Your task to perform on an android device: Add "amazon basics triple a" to the cart on newegg.com Image 0: 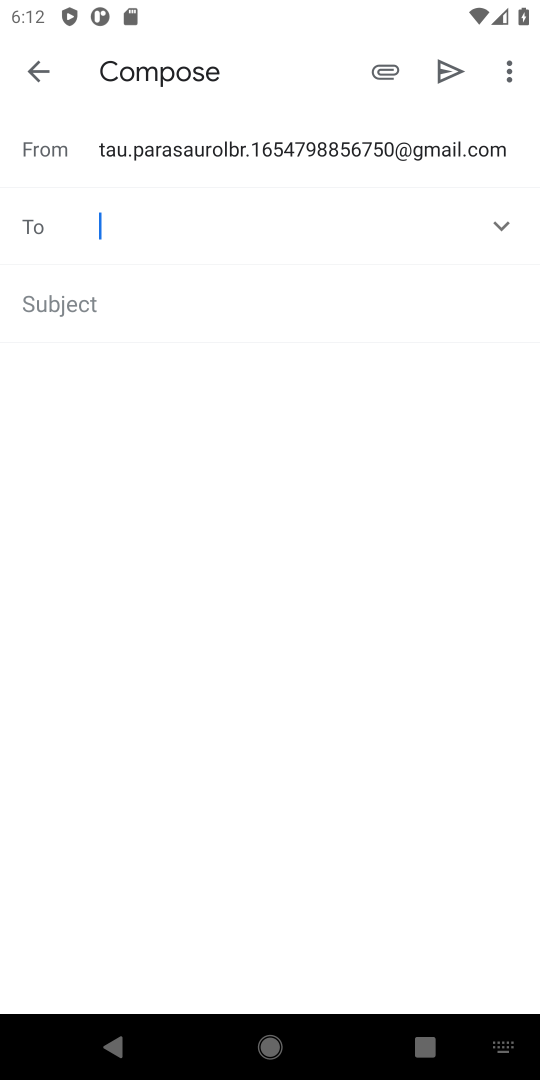
Step 0: click (141, 954)
Your task to perform on an android device: Add "amazon basics triple a" to the cart on newegg.com Image 1: 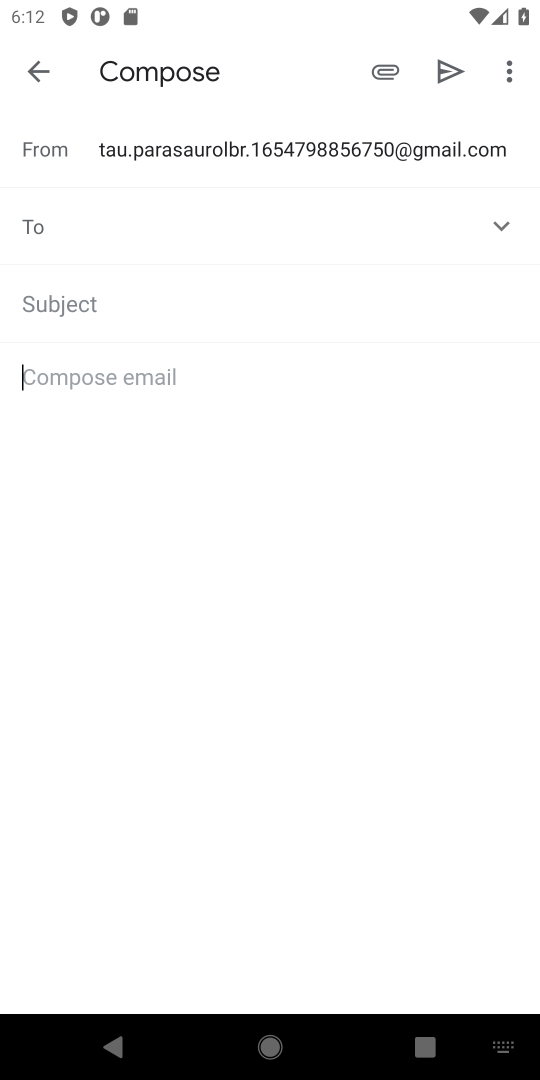
Step 1: press home button
Your task to perform on an android device: Add "amazon basics triple a" to the cart on newegg.com Image 2: 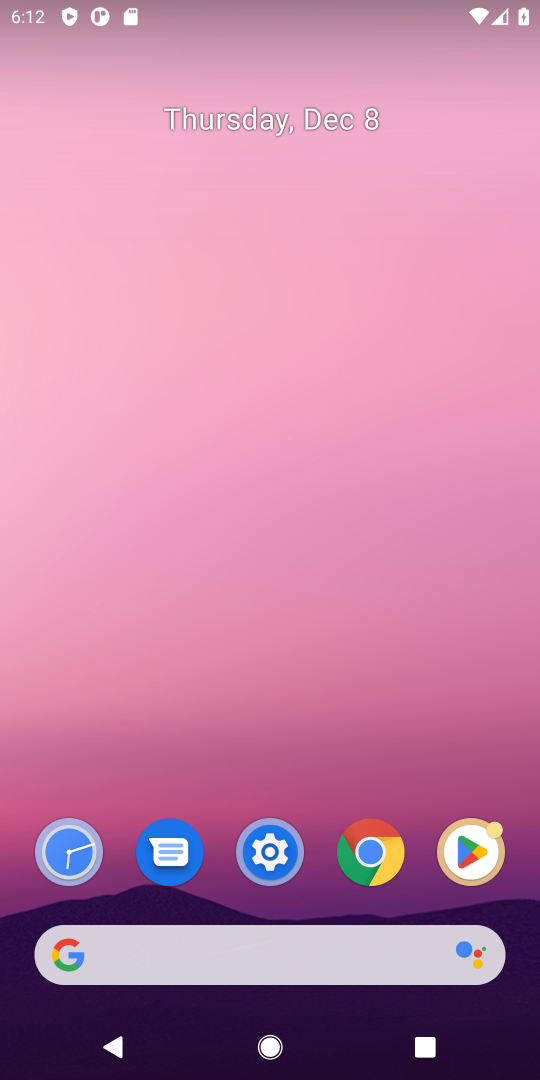
Step 2: click (259, 963)
Your task to perform on an android device: Add "amazon basics triple a" to the cart on newegg.com Image 3: 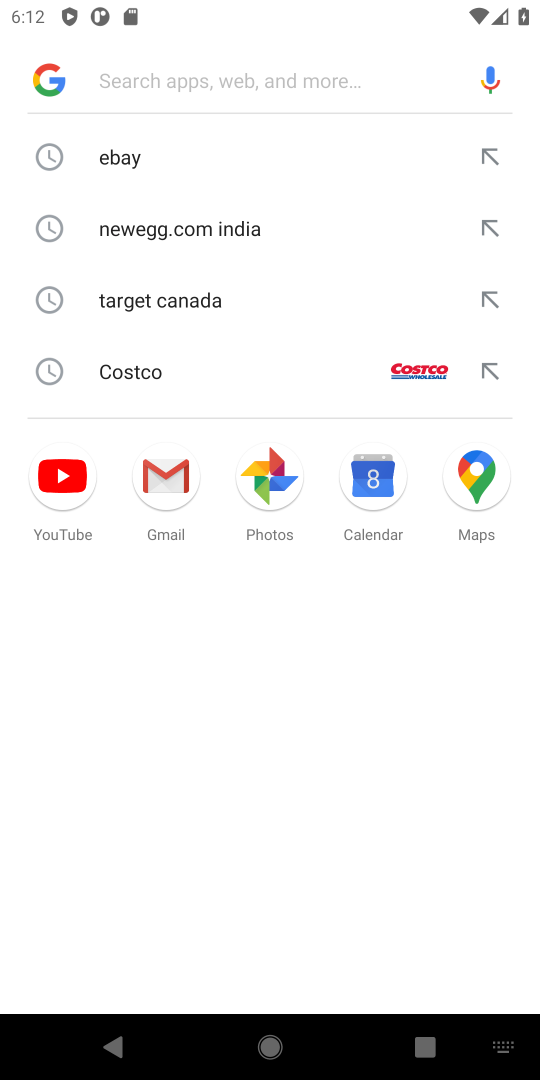
Step 3: type "newegg.com"
Your task to perform on an android device: Add "amazon basics triple a" to the cart on newegg.com Image 4: 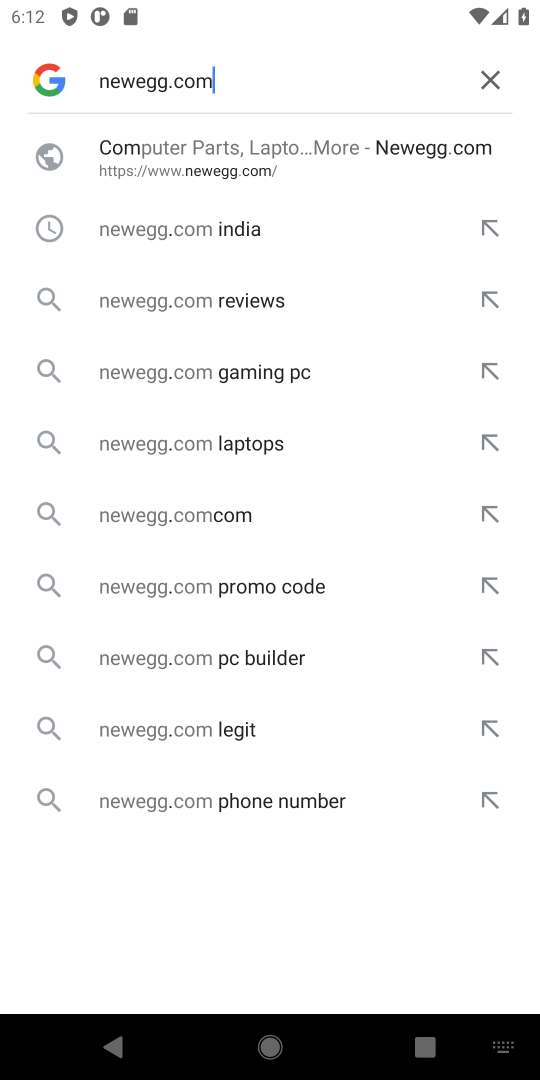
Step 4: click (289, 158)
Your task to perform on an android device: Add "amazon basics triple a" to the cart on newegg.com Image 5: 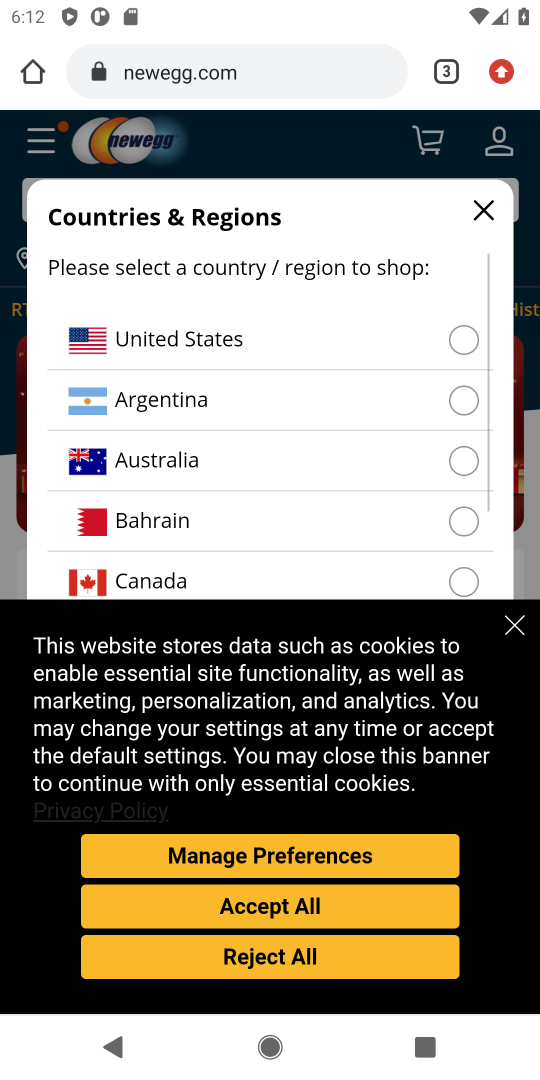
Step 5: click (174, 898)
Your task to perform on an android device: Add "amazon basics triple a" to the cart on newegg.com Image 6: 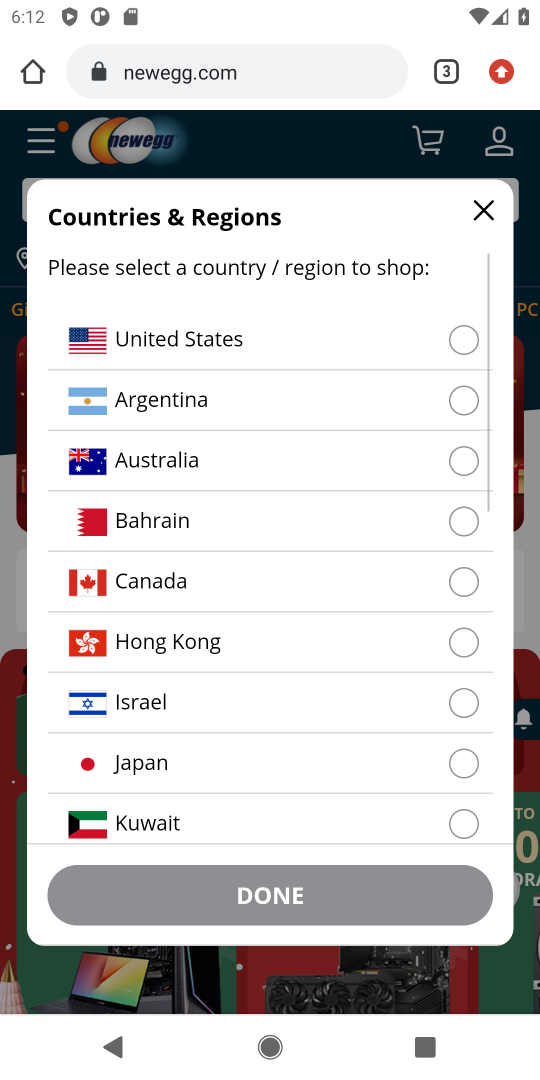
Step 6: click (326, 352)
Your task to perform on an android device: Add "amazon basics triple a" to the cart on newegg.com Image 7: 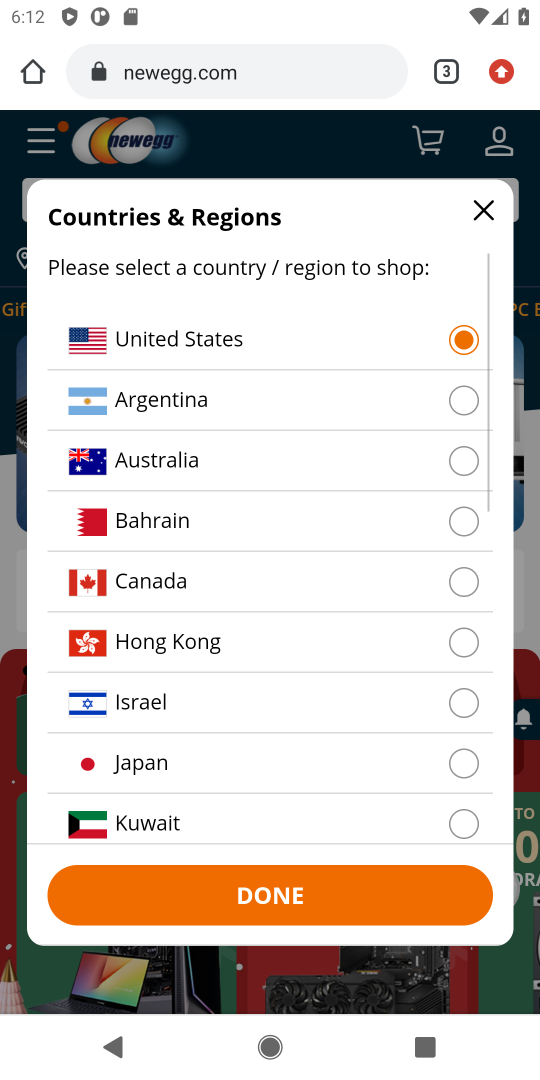
Step 7: click (330, 910)
Your task to perform on an android device: Add "amazon basics triple a" to the cart on newegg.com Image 8: 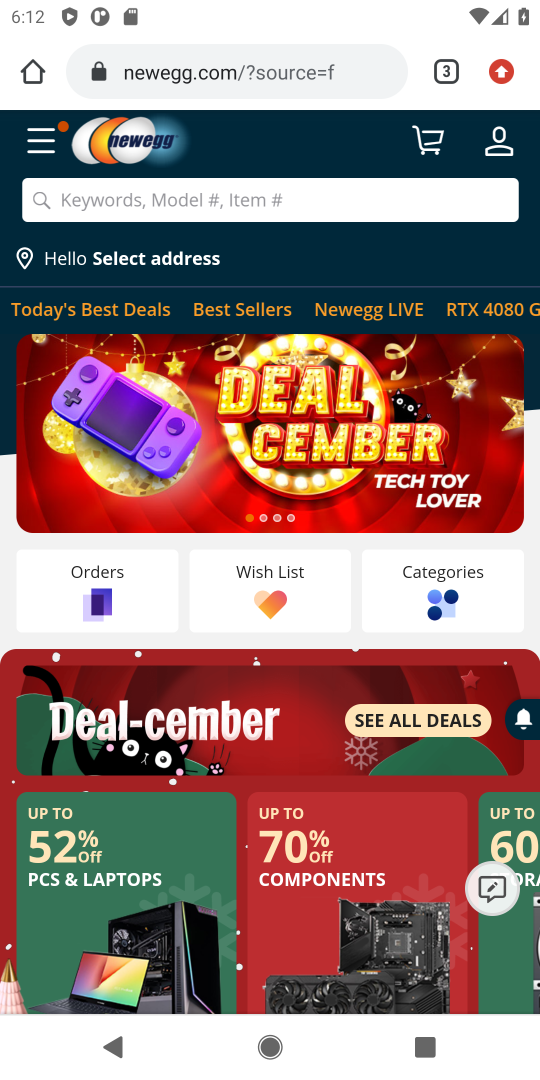
Step 8: click (195, 209)
Your task to perform on an android device: Add "amazon basics triple a" to the cart on newegg.com Image 9: 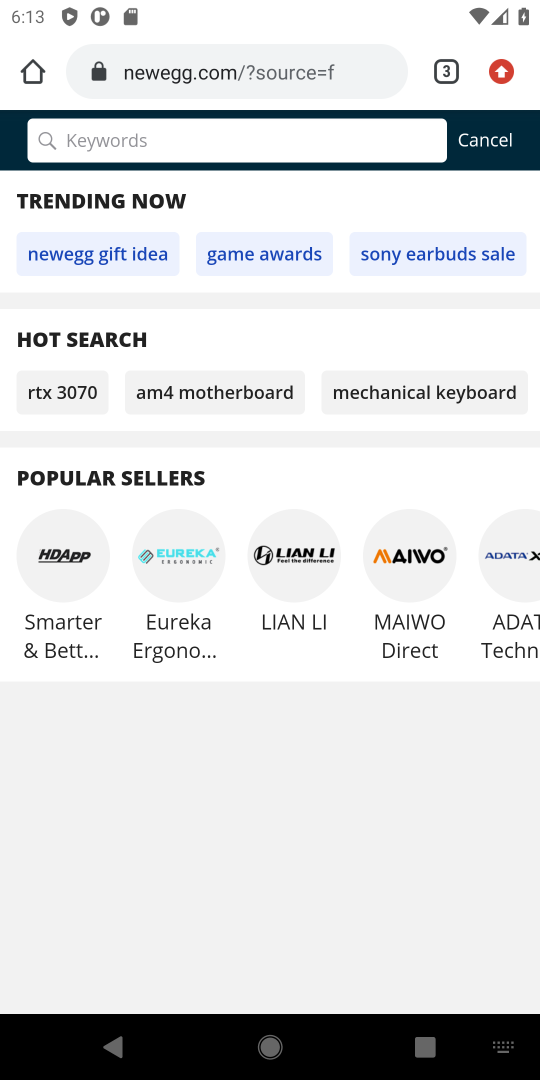
Step 9: type "amazon triple "
Your task to perform on an android device: Add "amazon basics triple a" to the cart on newegg.com Image 10: 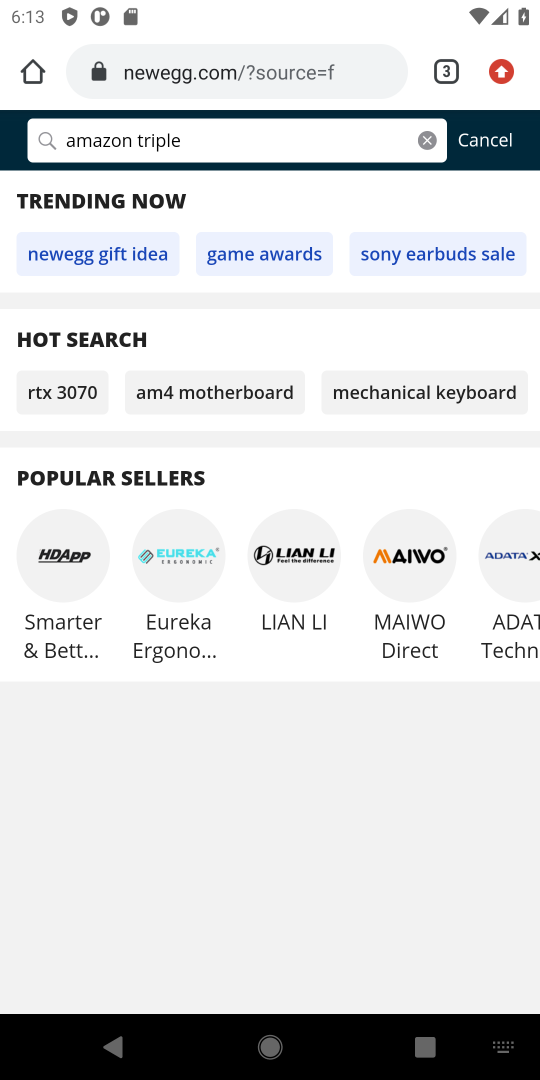
Step 10: click (292, 153)
Your task to perform on an android device: Add "amazon basics triple a" to the cart on newegg.com Image 11: 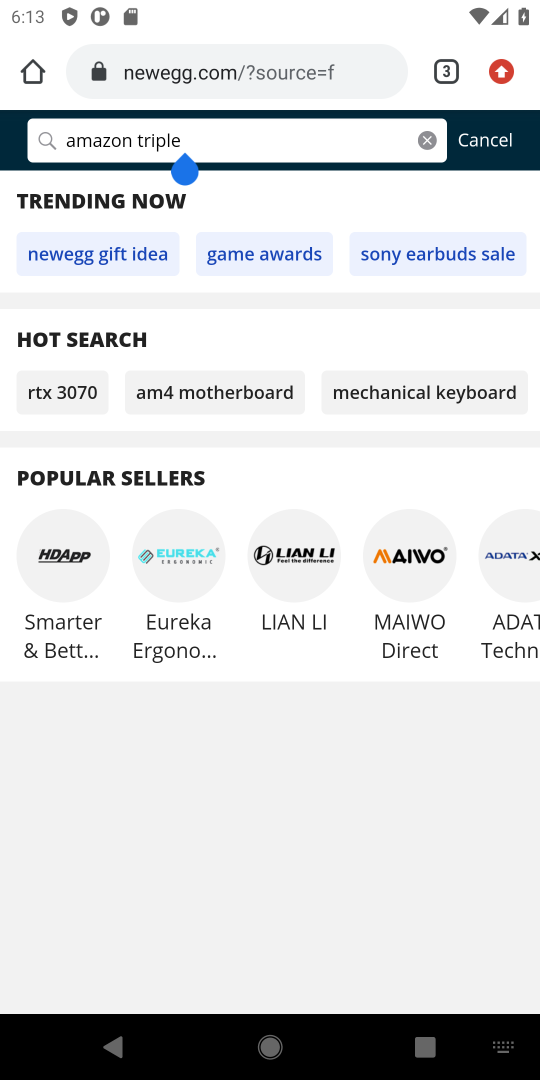
Step 11: click (292, 153)
Your task to perform on an android device: Add "amazon basics triple a" to the cart on newegg.com Image 12: 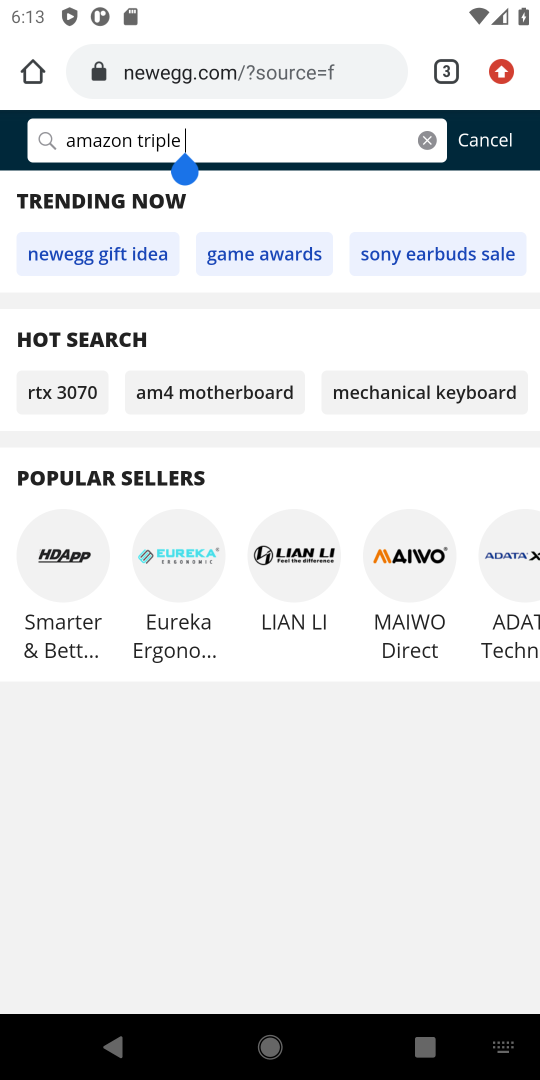
Step 12: click (427, 147)
Your task to perform on an android device: Add "amazon basics triple a" to the cart on newegg.com Image 13: 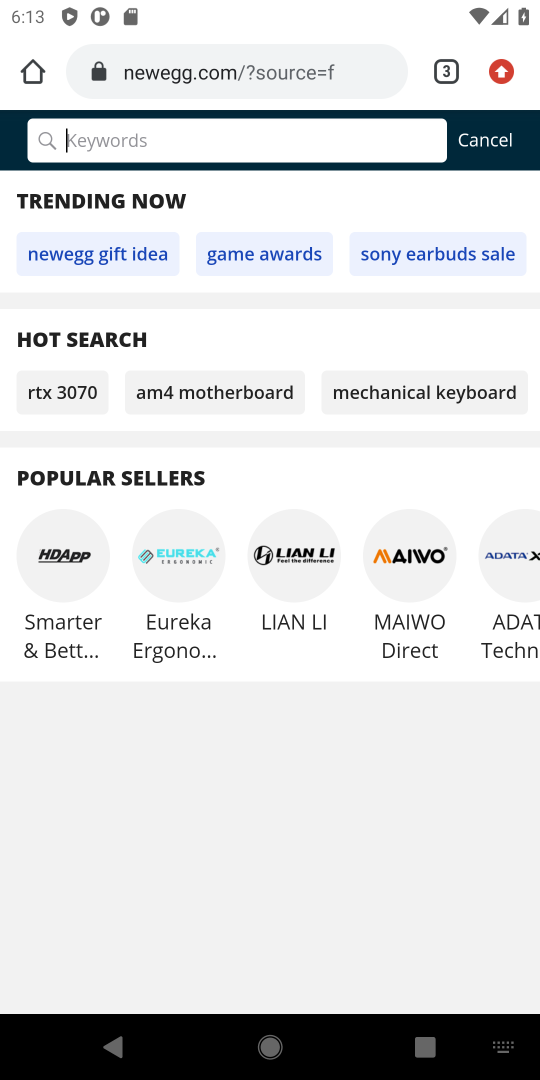
Step 13: type "amazon basic triple"
Your task to perform on an android device: Add "amazon basics triple a" to the cart on newegg.com Image 14: 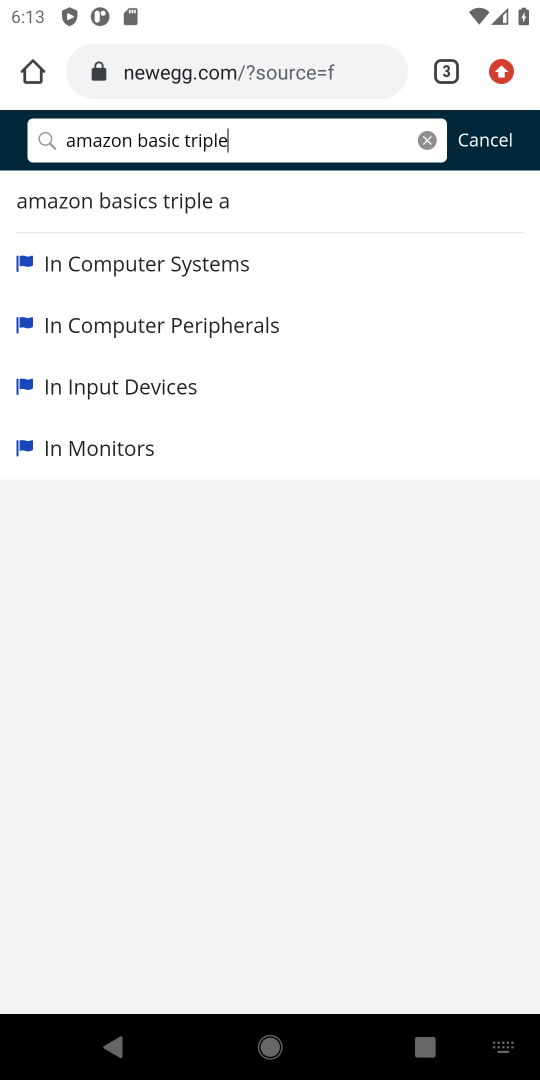
Step 14: click (183, 209)
Your task to perform on an android device: Add "amazon basics triple a" to the cart on newegg.com Image 15: 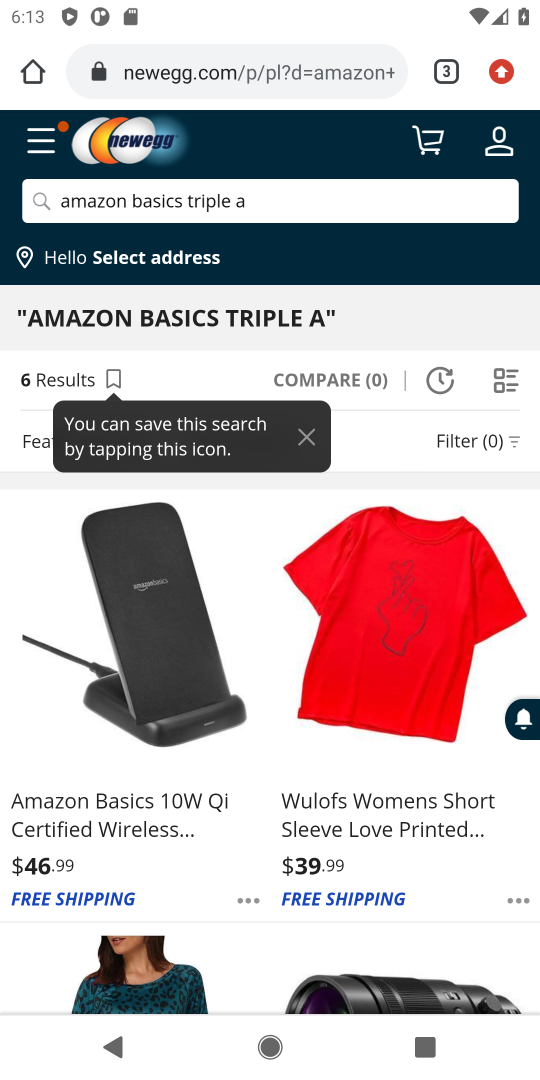
Step 15: click (312, 447)
Your task to perform on an android device: Add "amazon basics triple a" to the cart on newegg.com Image 16: 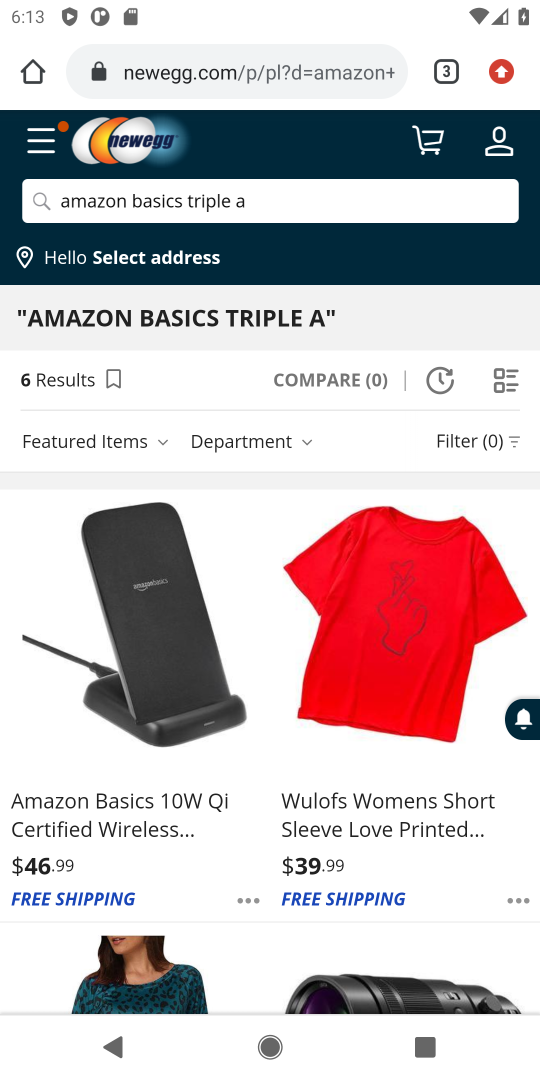
Step 16: task complete